Your task to perform on an android device: check android version Image 0: 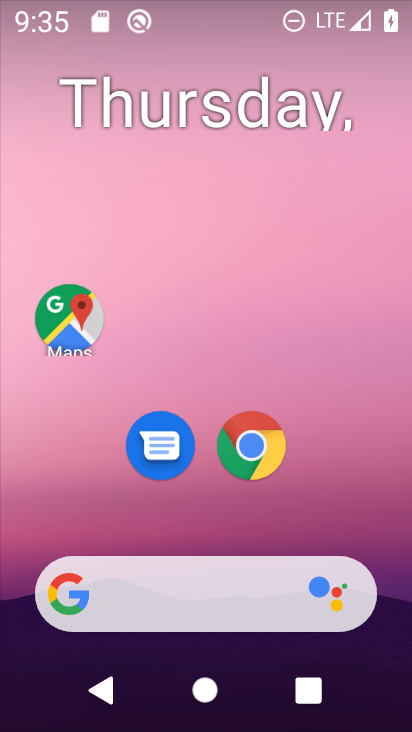
Step 0: drag from (406, 543) to (329, 45)
Your task to perform on an android device: check android version Image 1: 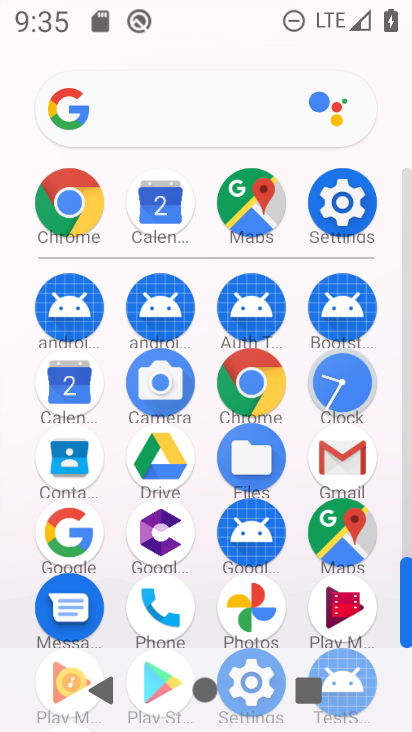
Step 1: click (343, 222)
Your task to perform on an android device: check android version Image 2: 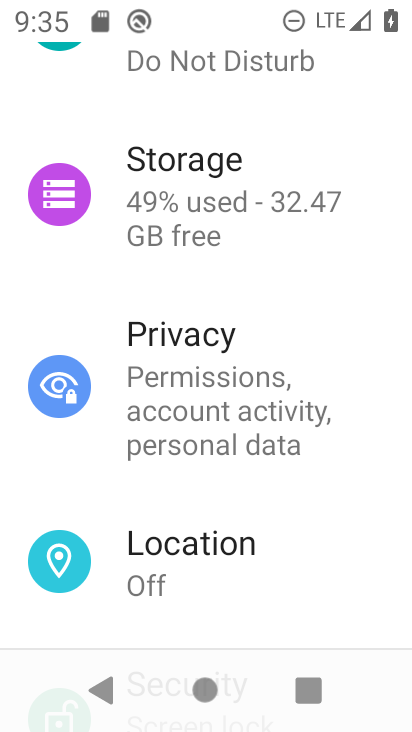
Step 2: drag from (278, 597) to (285, 332)
Your task to perform on an android device: check android version Image 3: 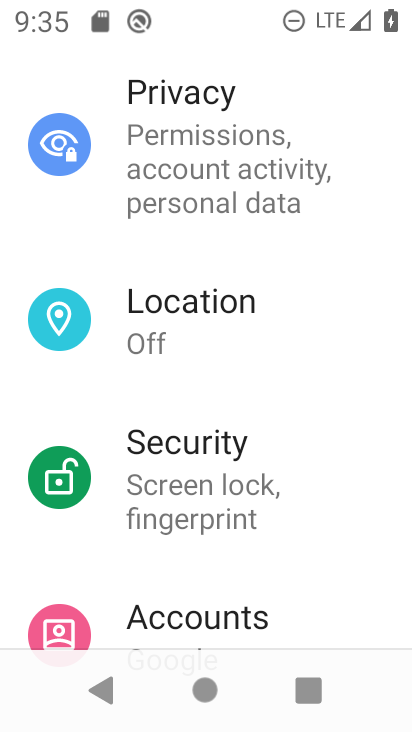
Step 3: click (254, 99)
Your task to perform on an android device: check android version Image 4: 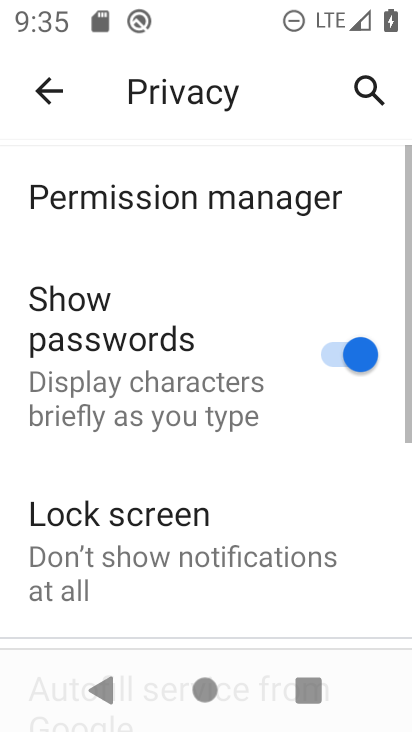
Step 4: drag from (228, 601) to (292, 133)
Your task to perform on an android device: check android version Image 5: 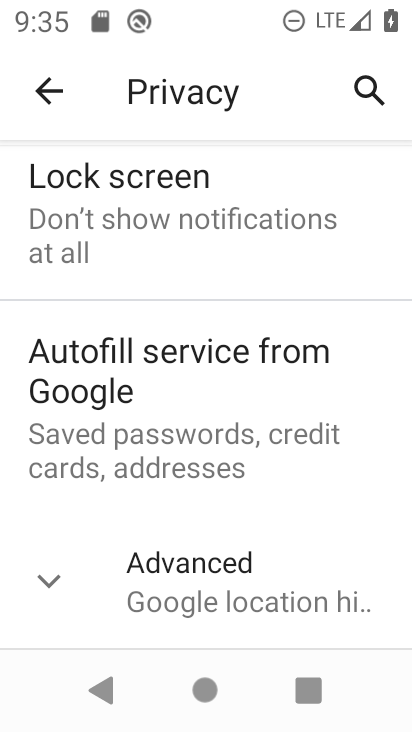
Step 5: press back button
Your task to perform on an android device: check android version Image 6: 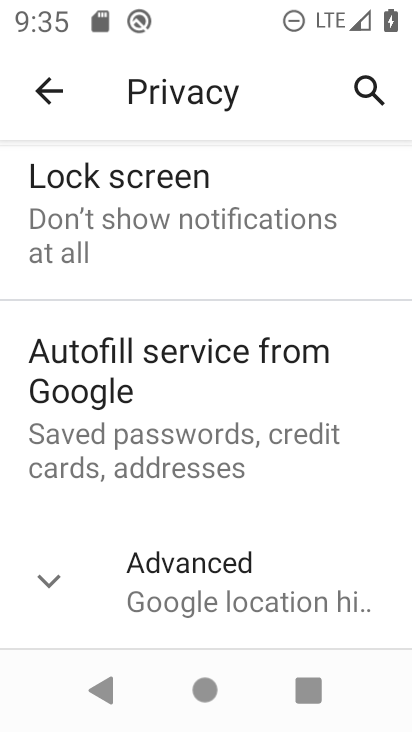
Step 6: drag from (265, 601) to (271, 56)
Your task to perform on an android device: check android version Image 7: 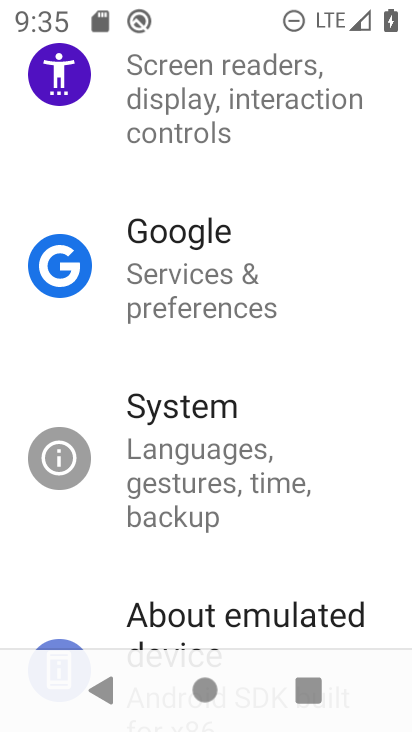
Step 7: drag from (234, 581) to (259, 157)
Your task to perform on an android device: check android version Image 8: 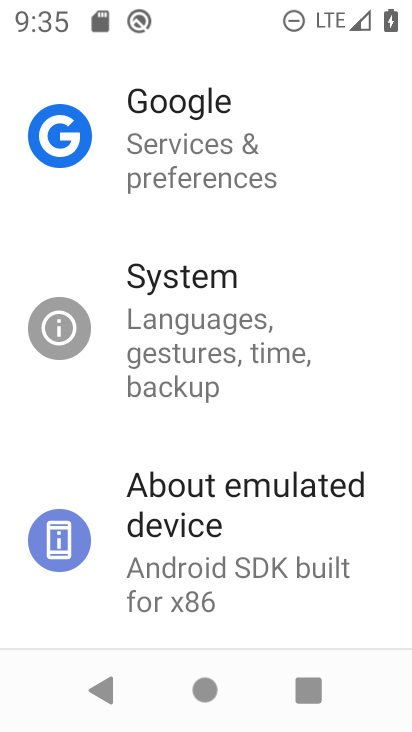
Step 8: click (271, 547)
Your task to perform on an android device: check android version Image 9: 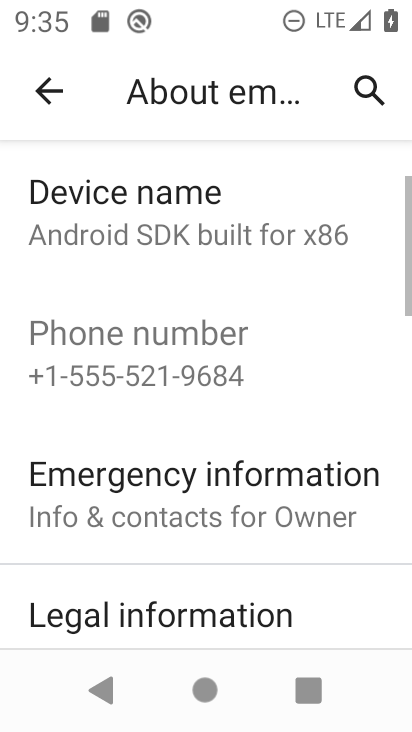
Step 9: drag from (250, 535) to (230, 82)
Your task to perform on an android device: check android version Image 10: 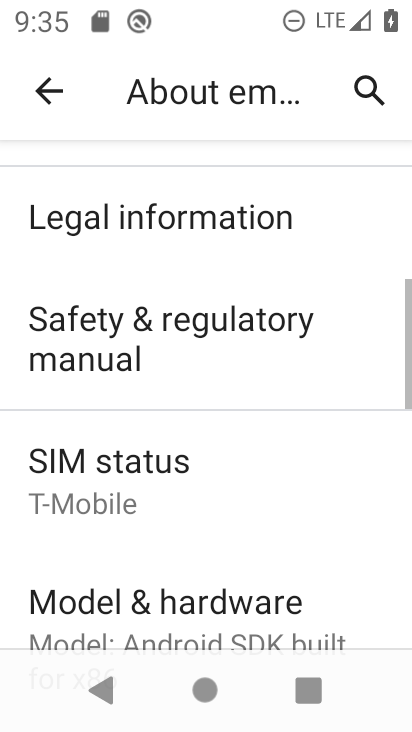
Step 10: drag from (165, 560) to (148, 41)
Your task to perform on an android device: check android version Image 11: 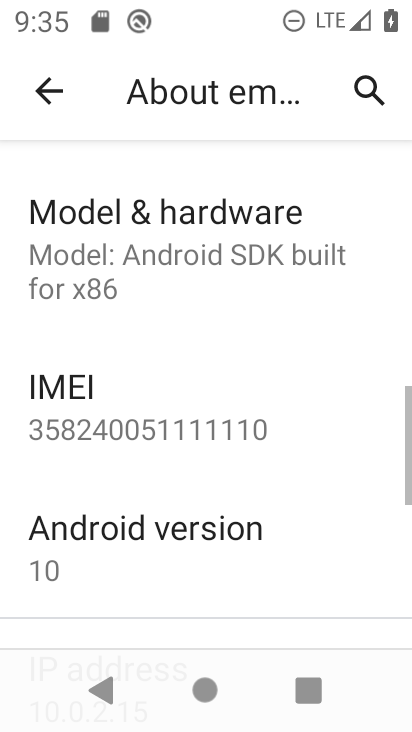
Step 11: click (66, 615)
Your task to perform on an android device: check android version Image 12: 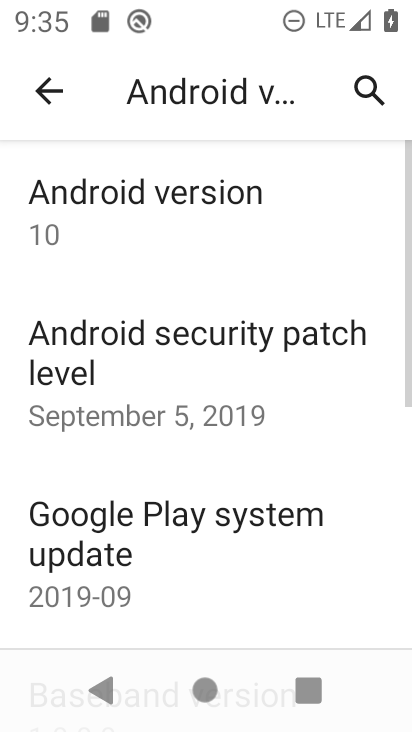
Step 12: task complete